Your task to perform on an android device: change text size in settings app Image 0: 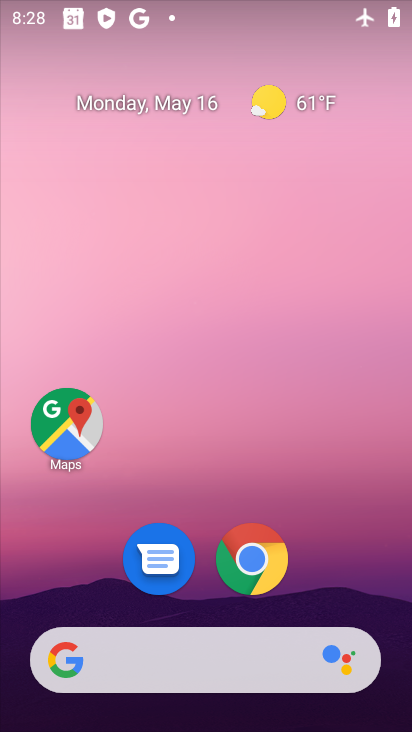
Step 0: drag from (235, 579) to (287, 94)
Your task to perform on an android device: change text size in settings app Image 1: 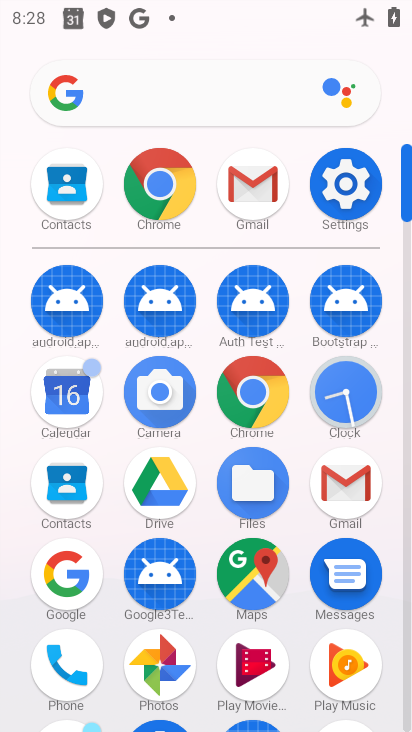
Step 1: click (343, 187)
Your task to perform on an android device: change text size in settings app Image 2: 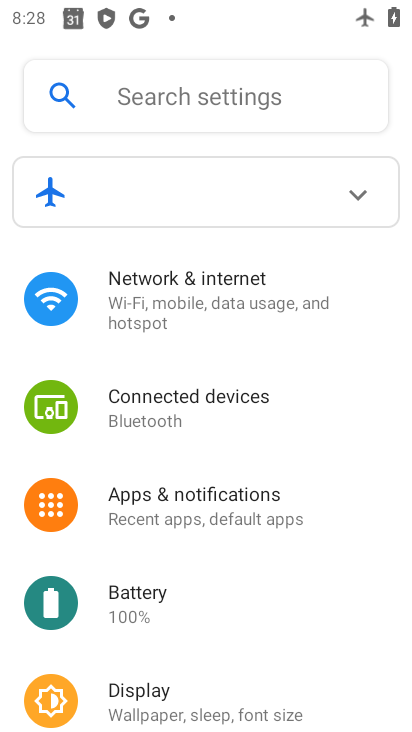
Step 2: click (175, 111)
Your task to perform on an android device: change text size in settings app Image 3: 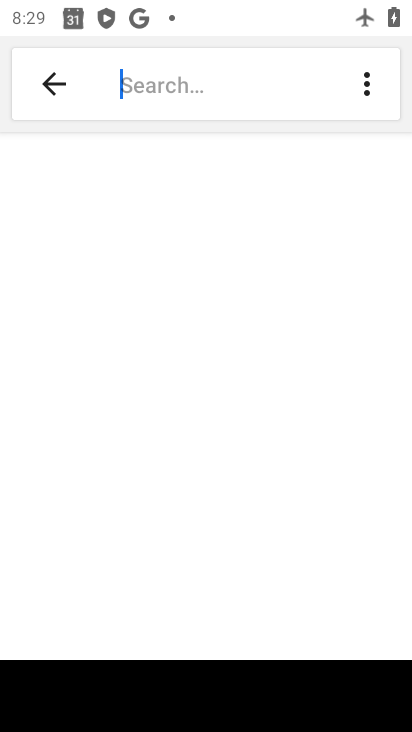
Step 3: type "text size"
Your task to perform on an android device: change text size in settings app Image 4: 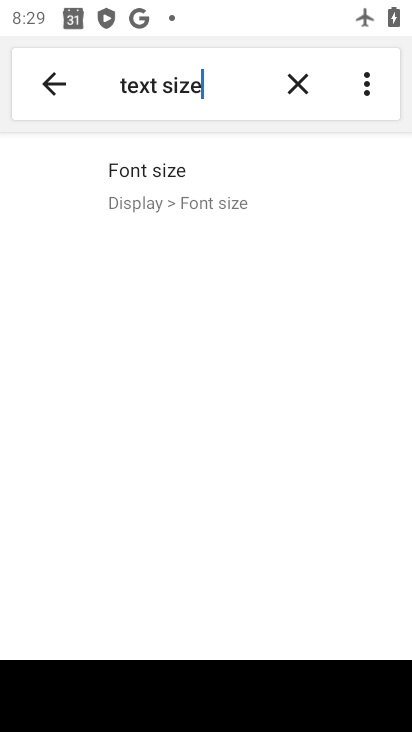
Step 4: click (168, 155)
Your task to perform on an android device: change text size in settings app Image 5: 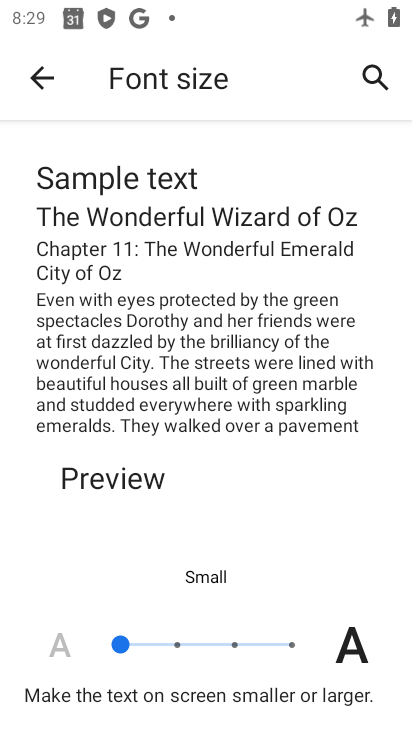
Step 5: task complete